Your task to perform on an android device: Search for vegetarian restaurants on Maps Image 0: 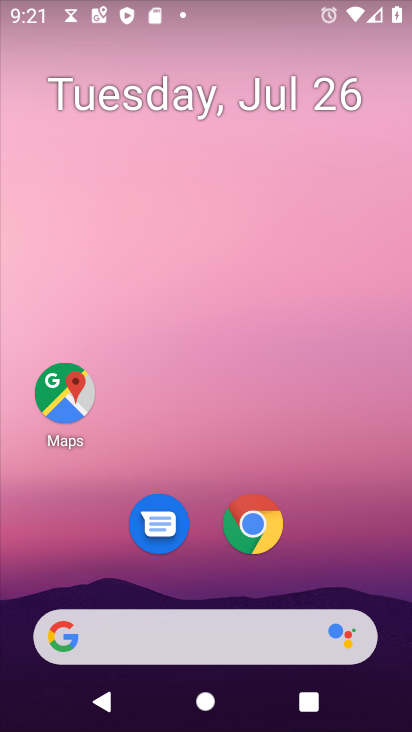
Step 0: click (66, 393)
Your task to perform on an android device: Search for vegetarian restaurants on Maps Image 1: 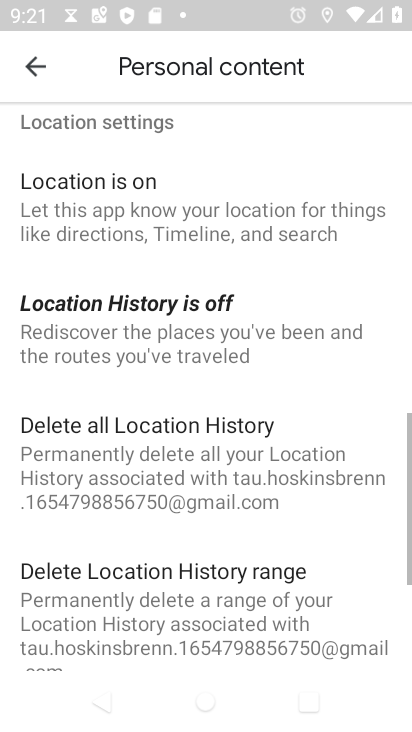
Step 1: click (41, 71)
Your task to perform on an android device: Search for vegetarian restaurants on Maps Image 2: 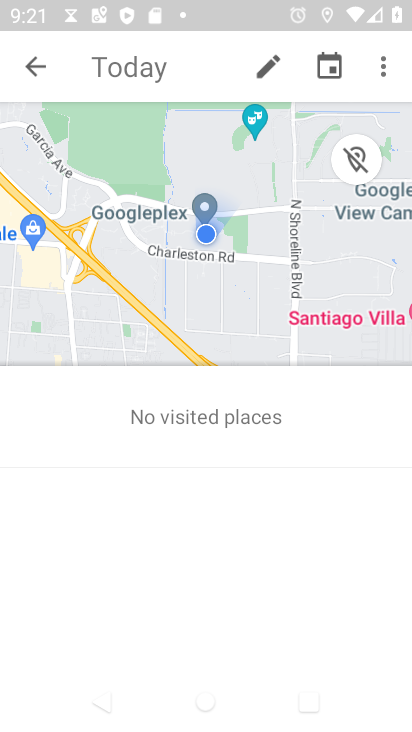
Step 2: click (42, 60)
Your task to perform on an android device: Search for vegetarian restaurants on Maps Image 3: 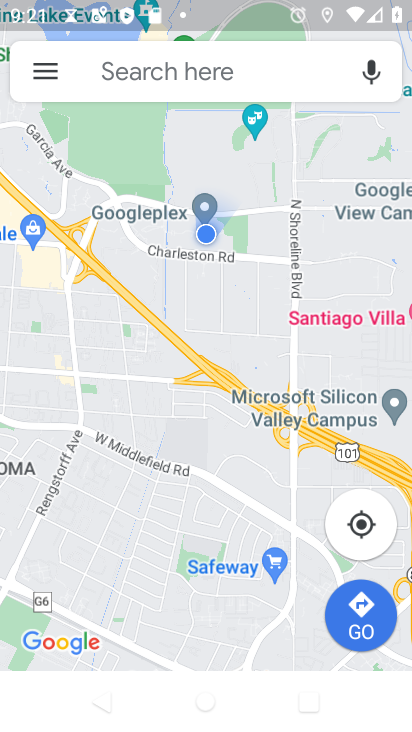
Step 3: click (176, 77)
Your task to perform on an android device: Search for vegetarian restaurants on Maps Image 4: 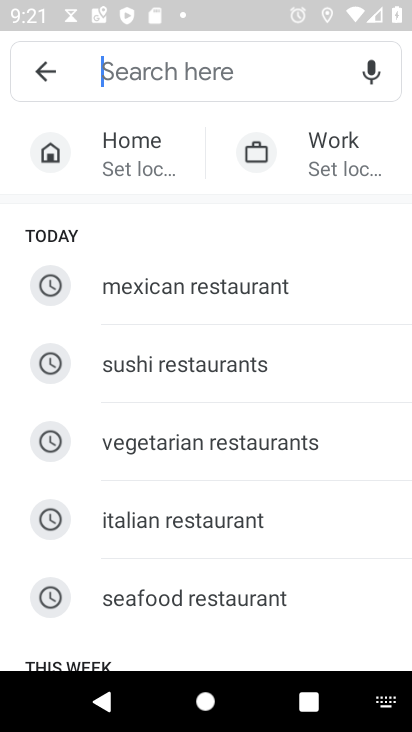
Step 4: click (161, 439)
Your task to perform on an android device: Search for vegetarian restaurants on Maps Image 5: 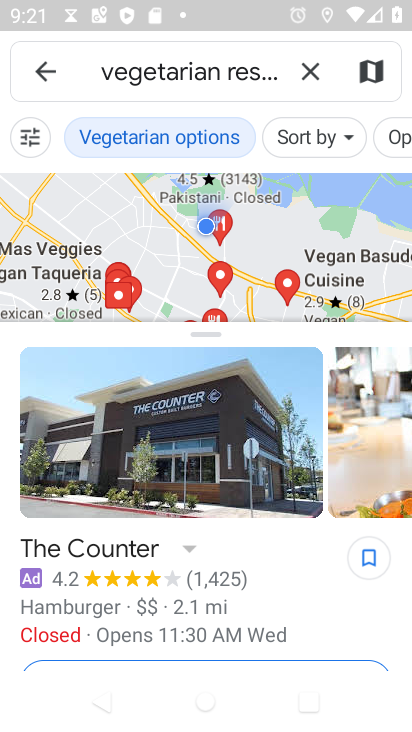
Step 5: task complete